Your task to perform on an android device: View the shopping cart on target. Add acer nitro to the cart on target Image 0: 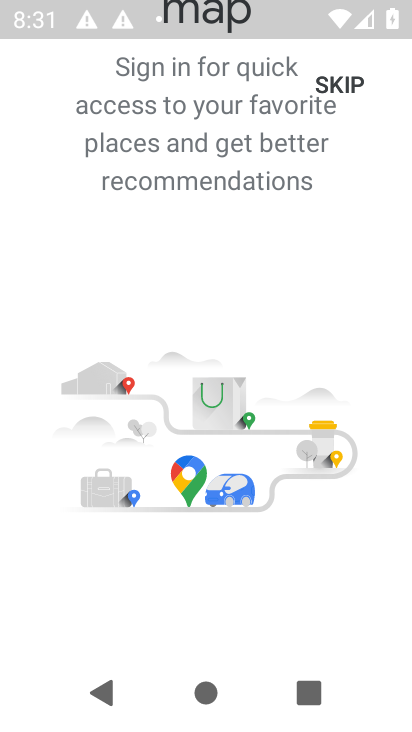
Step 0: press home button
Your task to perform on an android device: View the shopping cart on target. Add acer nitro to the cart on target Image 1: 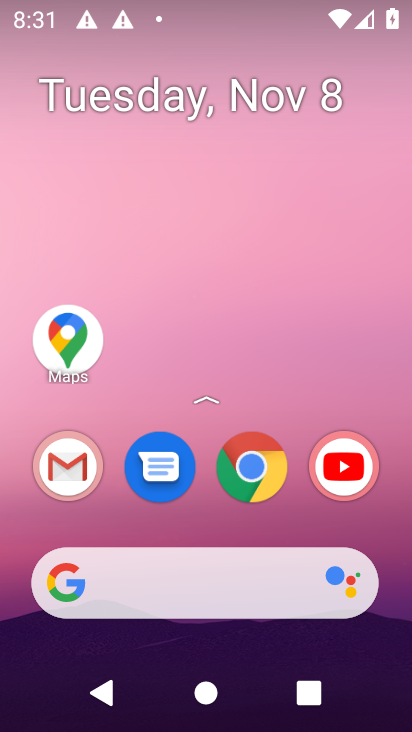
Step 1: click (208, 583)
Your task to perform on an android device: View the shopping cart on target. Add acer nitro to the cart on target Image 2: 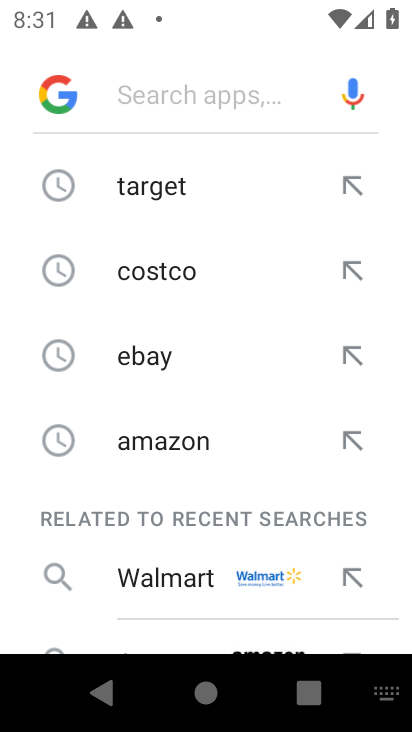
Step 2: click (211, 222)
Your task to perform on an android device: View the shopping cart on target. Add acer nitro to the cart on target Image 3: 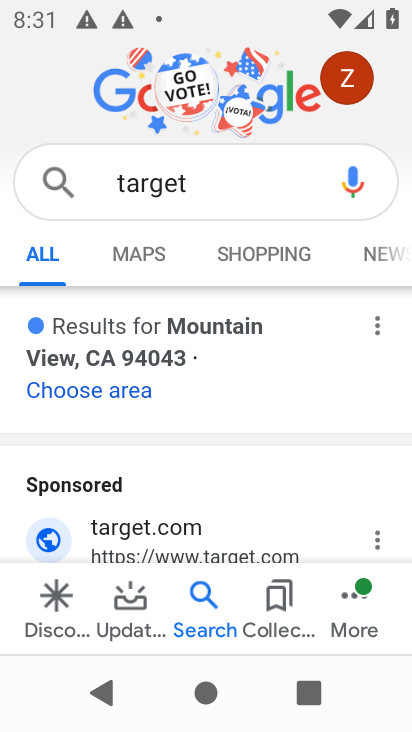
Step 3: click (97, 523)
Your task to perform on an android device: View the shopping cart on target. Add acer nitro to the cart on target Image 4: 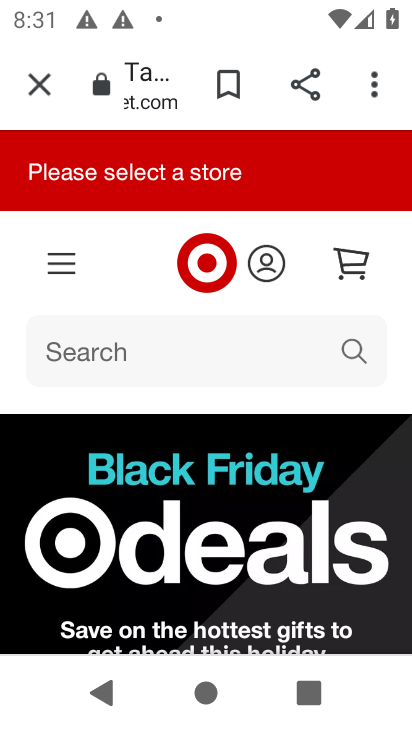
Step 4: click (297, 364)
Your task to perform on an android device: View the shopping cart on target. Add acer nitro to the cart on target Image 5: 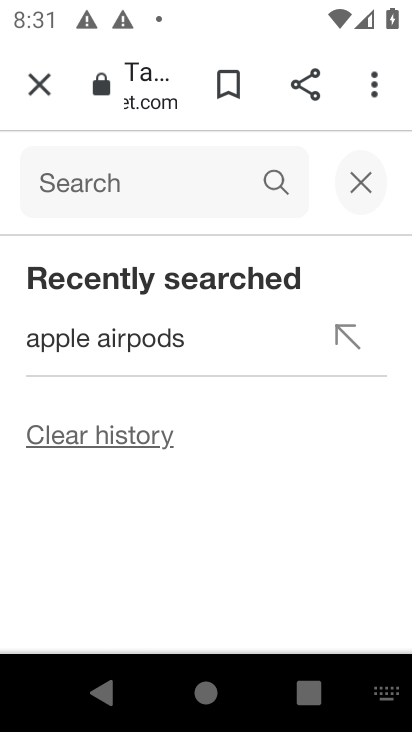
Step 5: type "nitro "
Your task to perform on an android device: View the shopping cart on target. Add acer nitro to the cart on target Image 6: 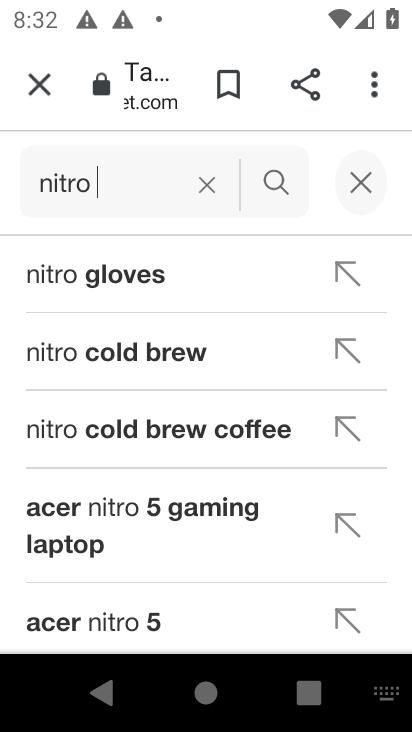
Step 6: click (77, 255)
Your task to perform on an android device: View the shopping cart on target. Add acer nitro to the cart on target Image 7: 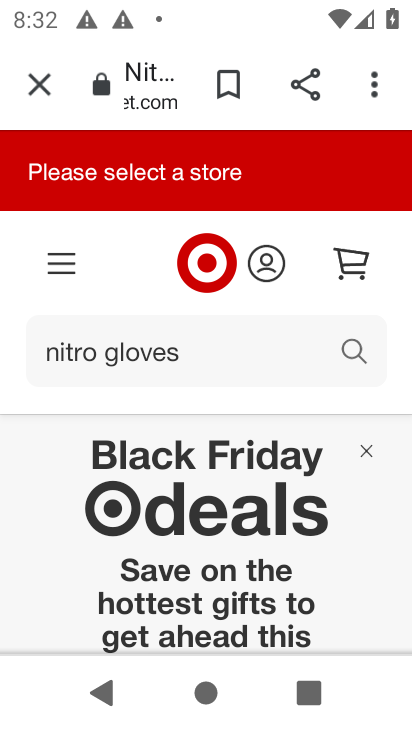
Step 7: click (363, 459)
Your task to perform on an android device: View the shopping cart on target. Add acer nitro to the cart on target Image 8: 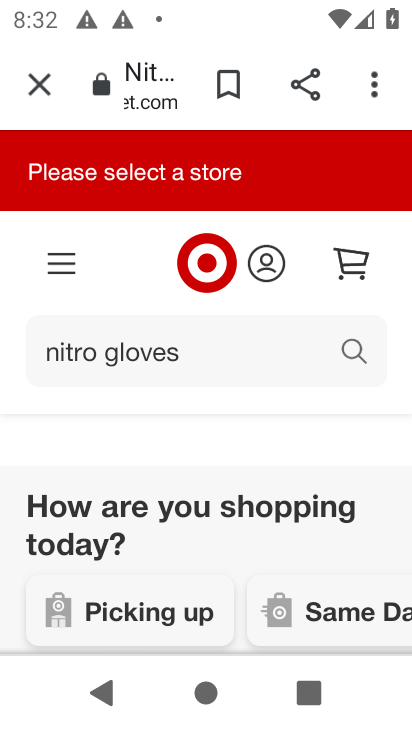
Step 8: task complete